Your task to perform on an android device: find snoozed emails in the gmail app Image 0: 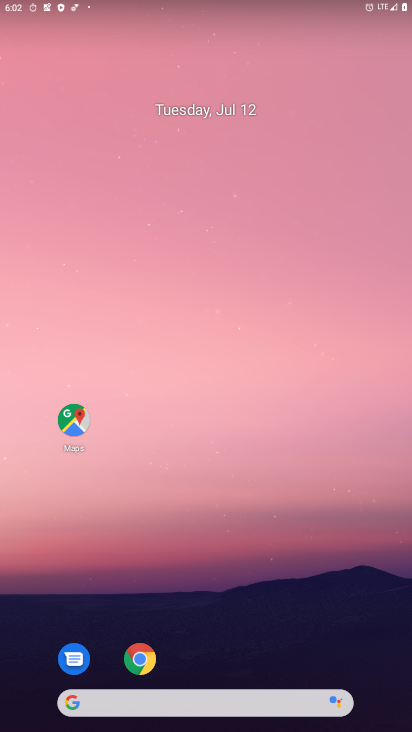
Step 0: click (240, 151)
Your task to perform on an android device: find snoozed emails in the gmail app Image 1: 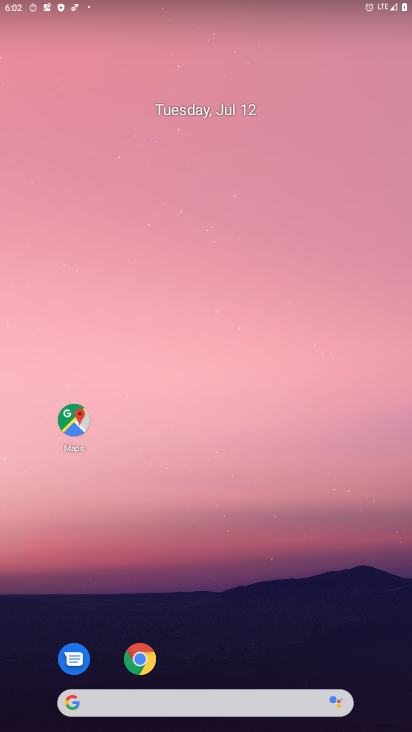
Step 1: drag from (233, 196) to (242, 104)
Your task to perform on an android device: find snoozed emails in the gmail app Image 2: 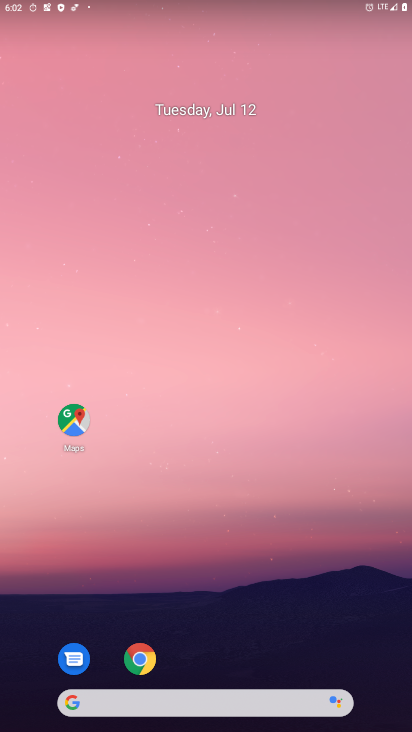
Step 2: drag from (240, 363) to (240, 108)
Your task to perform on an android device: find snoozed emails in the gmail app Image 3: 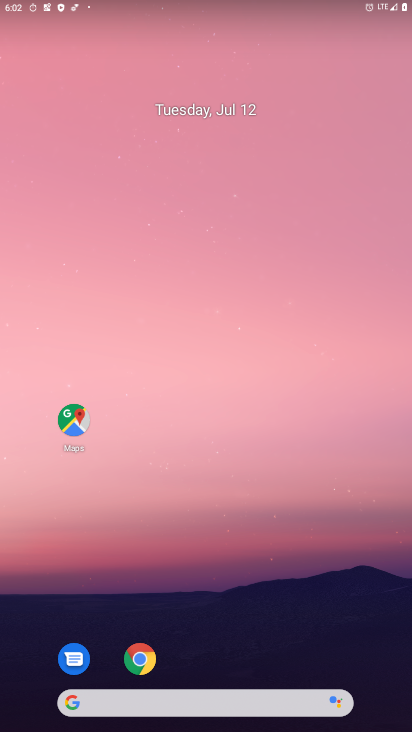
Step 3: drag from (208, 527) to (213, 120)
Your task to perform on an android device: find snoozed emails in the gmail app Image 4: 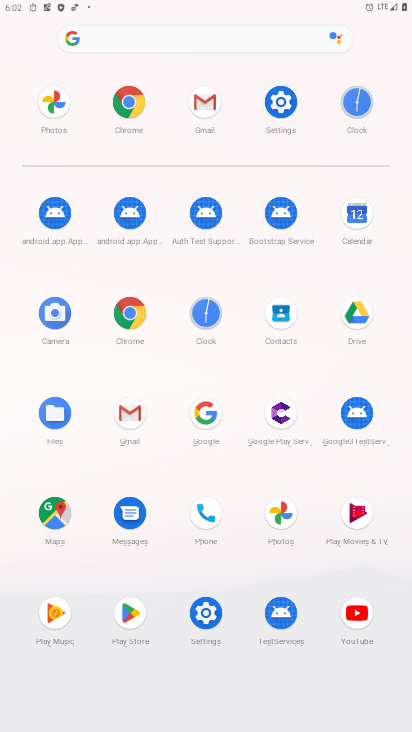
Step 4: click (196, 110)
Your task to perform on an android device: find snoozed emails in the gmail app Image 5: 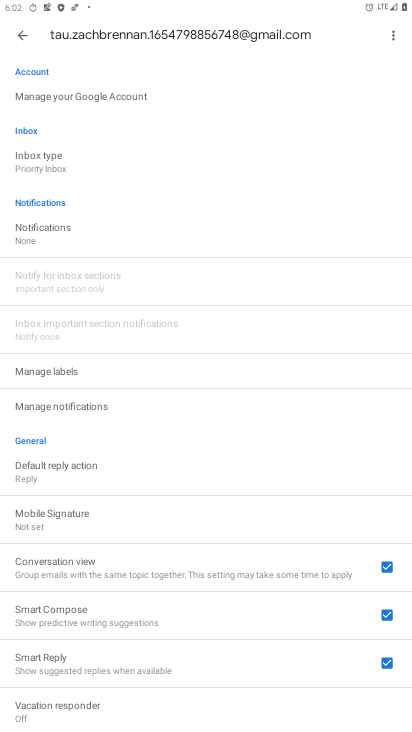
Step 5: drag from (135, 222) to (97, 517)
Your task to perform on an android device: find snoozed emails in the gmail app Image 6: 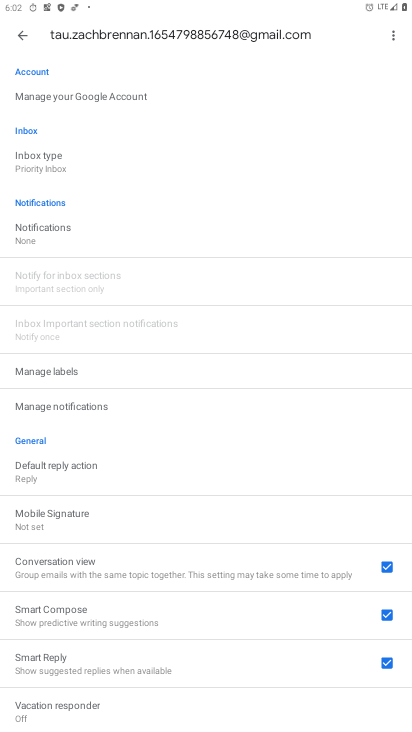
Step 6: click (25, 34)
Your task to perform on an android device: find snoozed emails in the gmail app Image 7: 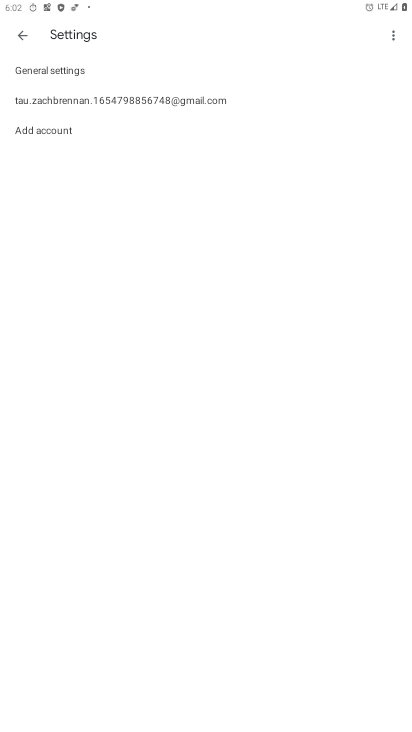
Step 7: click (25, 34)
Your task to perform on an android device: find snoozed emails in the gmail app Image 8: 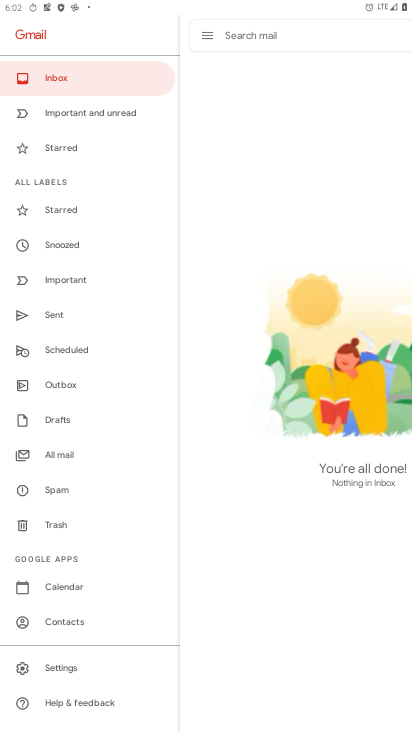
Step 8: click (76, 246)
Your task to perform on an android device: find snoozed emails in the gmail app Image 9: 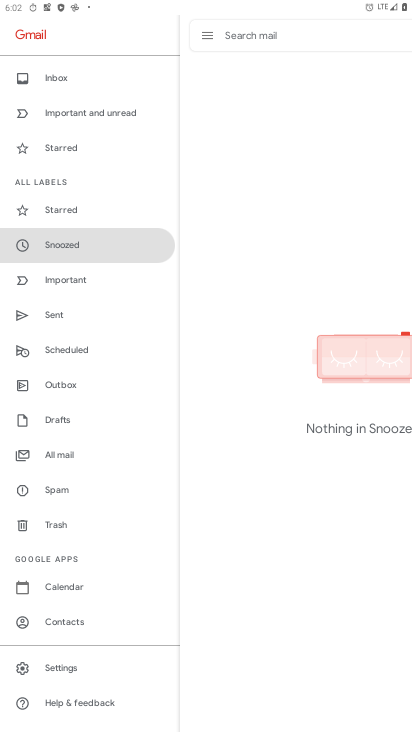
Step 9: task complete